Your task to perform on an android device: Open Google Maps Image 0: 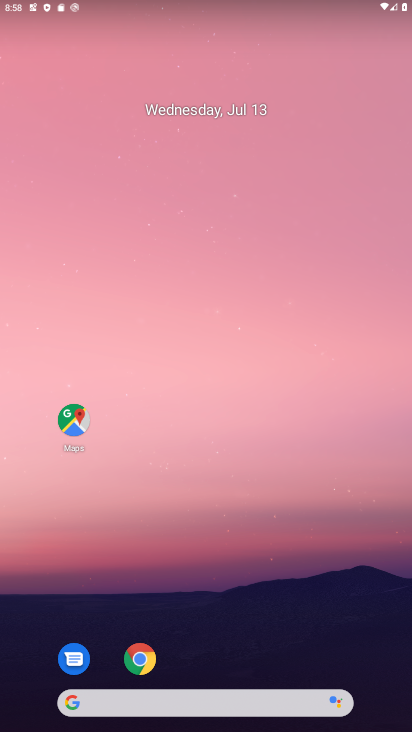
Step 0: click (83, 396)
Your task to perform on an android device: Open Google Maps Image 1: 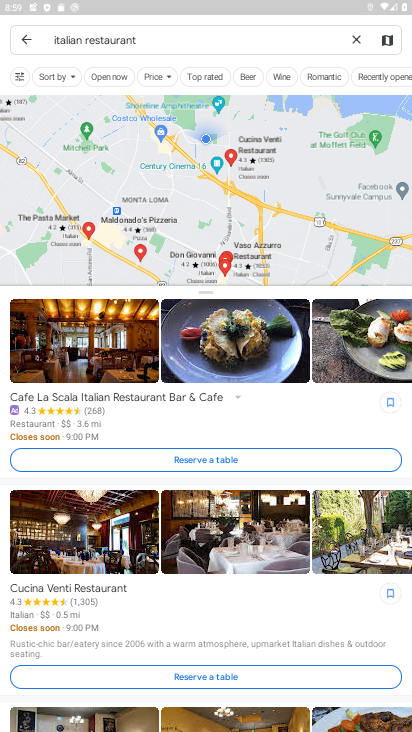
Step 1: task complete